Your task to perform on an android device: Go to ESPN.com Image 0: 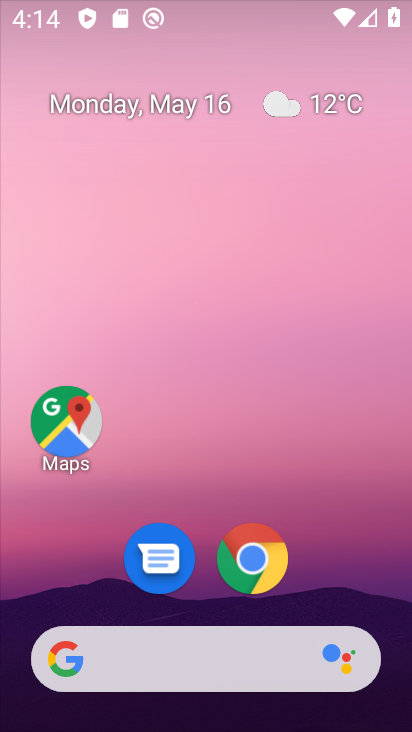
Step 0: drag from (316, 506) to (275, 156)
Your task to perform on an android device: Go to ESPN.com Image 1: 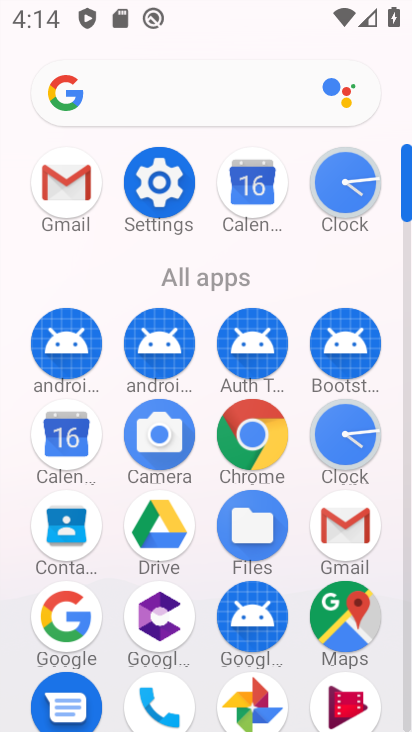
Step 1: click (258, 428)
Your task to perform on an android device: Go to ESPN.com Image 2: 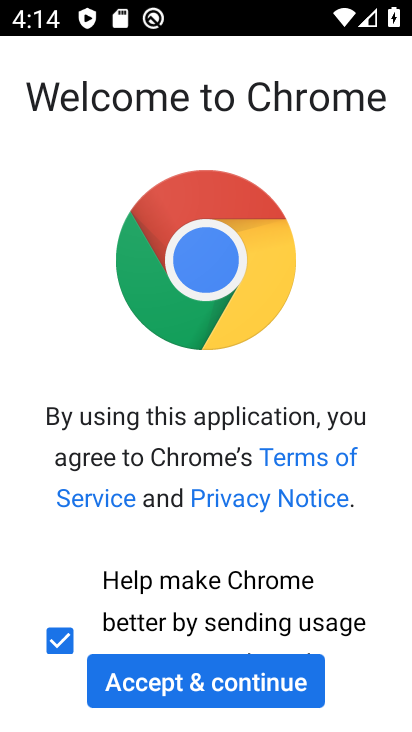
Step 2: click (222, 675)
Your task to perform on an android device: Go to ESPN.com Image 3: 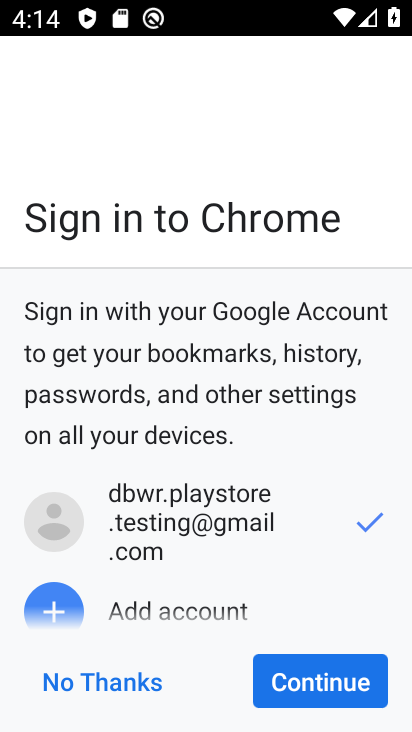
Step 3: click (304, 692)
Your task to perform on an android device: Go to ESPN.com Image 4: 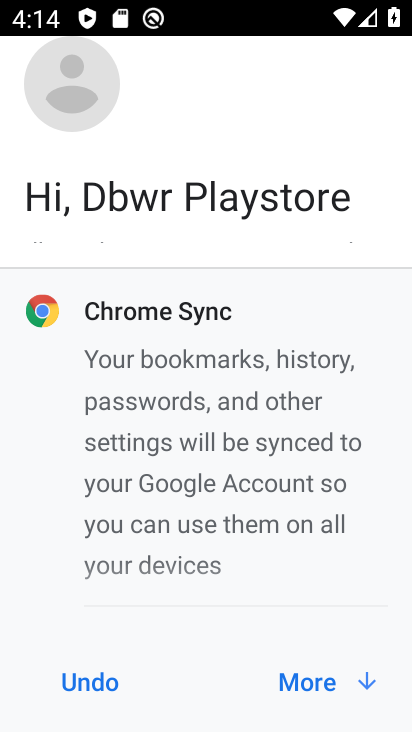
Step 4: click (304, 690)
Your task to perform on an android device: Go to ESPN.com Image 5: 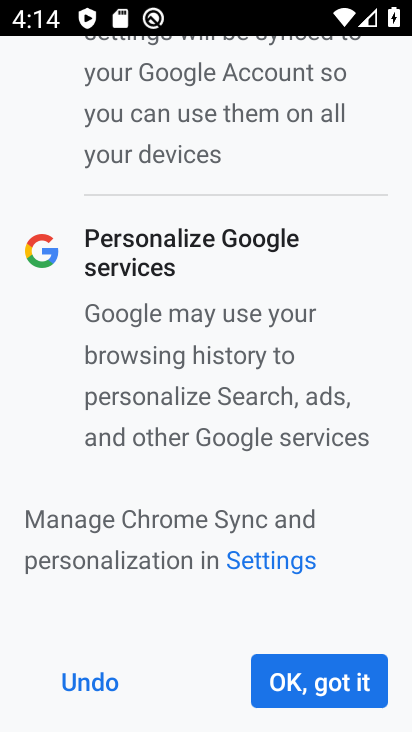
Step 5: click (304, 690)
Your task to perform on an android device: Go to ESPN.com Image 6: 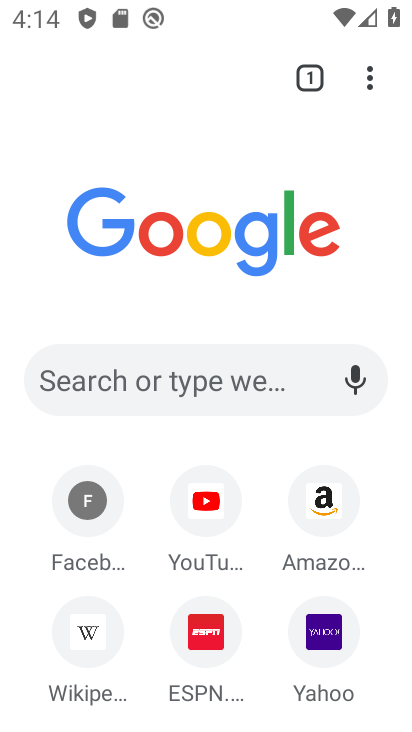
Step 6: click (221, 390)
Your task to perform on an android device: Go to ESPN.com Image 7: 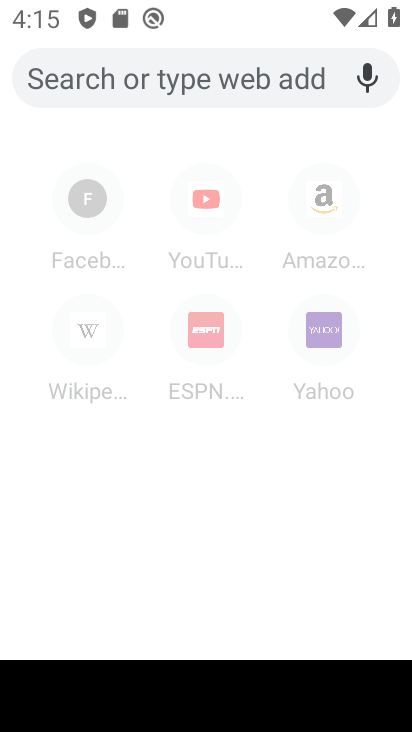
Step 7: type "ESPN.com"
Your task to perform on an android device: Go to ESPN.com Image 8: 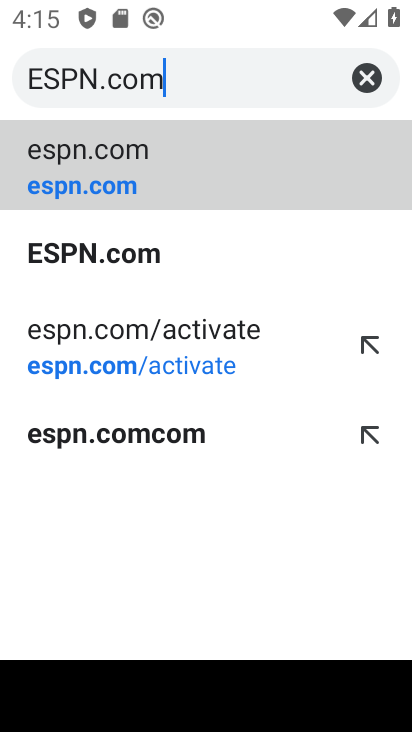
Step 8: click (136, 158)
Your task to perform on an android device: Go to ESPN.com Image 9: 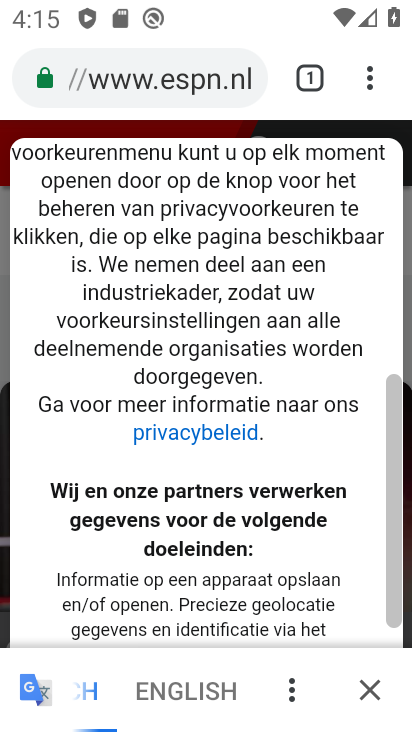
Step 9: task complete